Your task to perform on an android device: delete a single message in the gmail app Image 0: 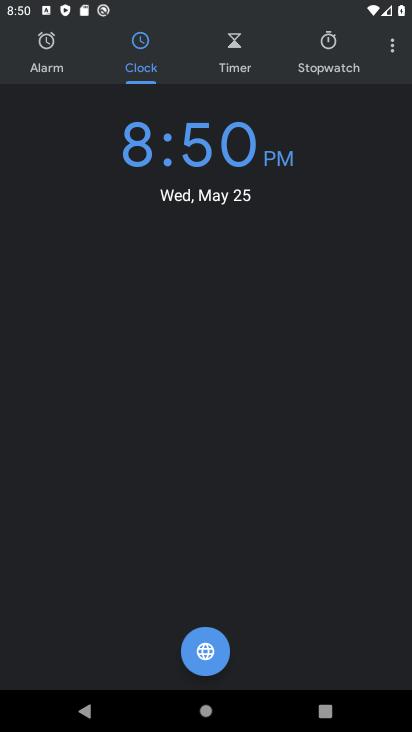
Step 0: press home button
Your task to perform on an android device: delete a single message in the gmail app Image 1: 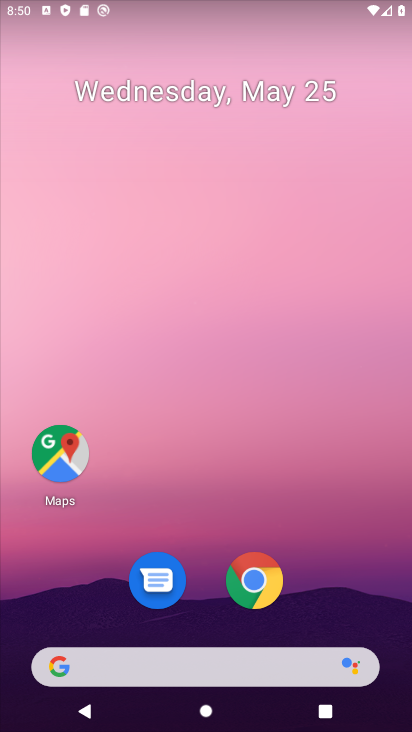
Step 1: drag from (16, 604) to (298, 124)
Your task to perform on an android device: delete a single message in the gmail app Image 2: 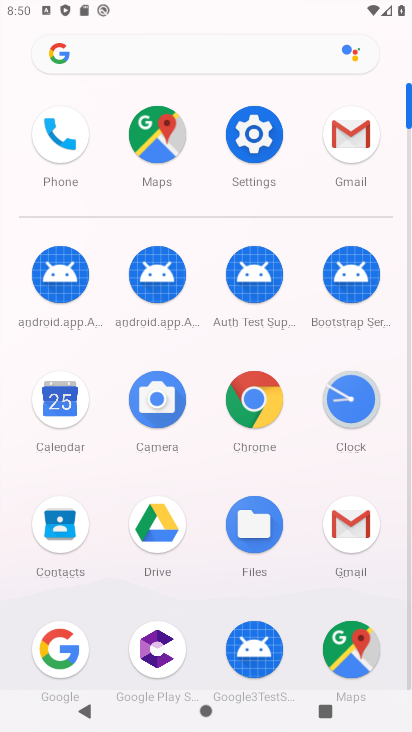
Step 2: click (368, 130)
Your task to perform on an android device: delete a single message in the gmail app Image 3: 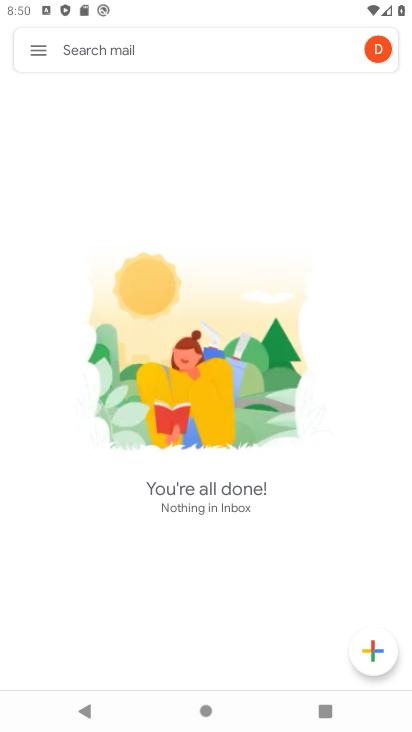
Step 3: click (32, 48)
Your task to perform on an android device: delete a single message in the gmail app Image 4: 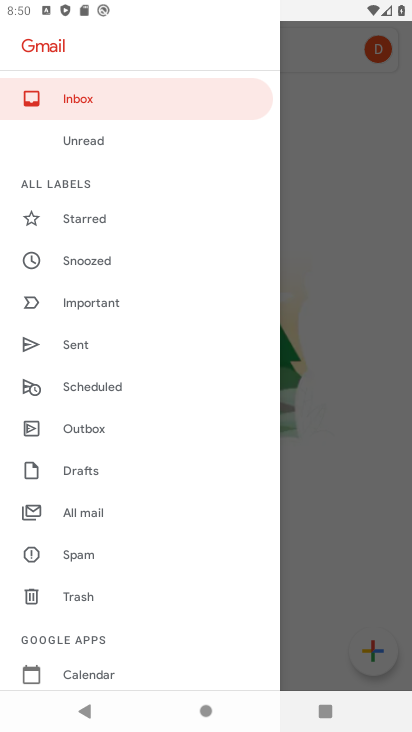
Step 4: click (95, 527)
Your task to perform on an android device: delete a single message in the gmail app Image 5: 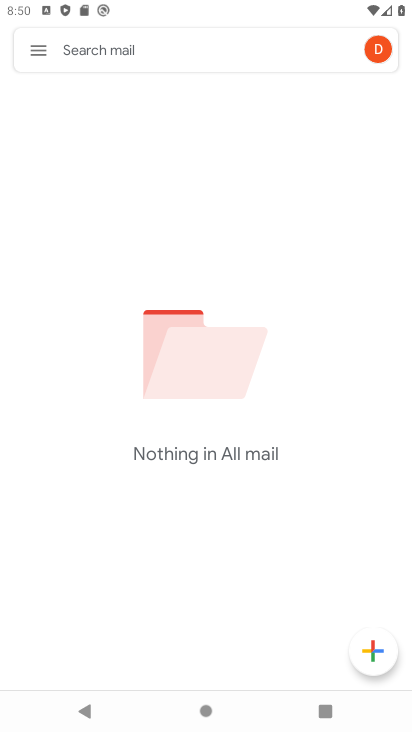
Step 5: task complete